Your task to perform on an android device: Open Yahoo.com Image 0: 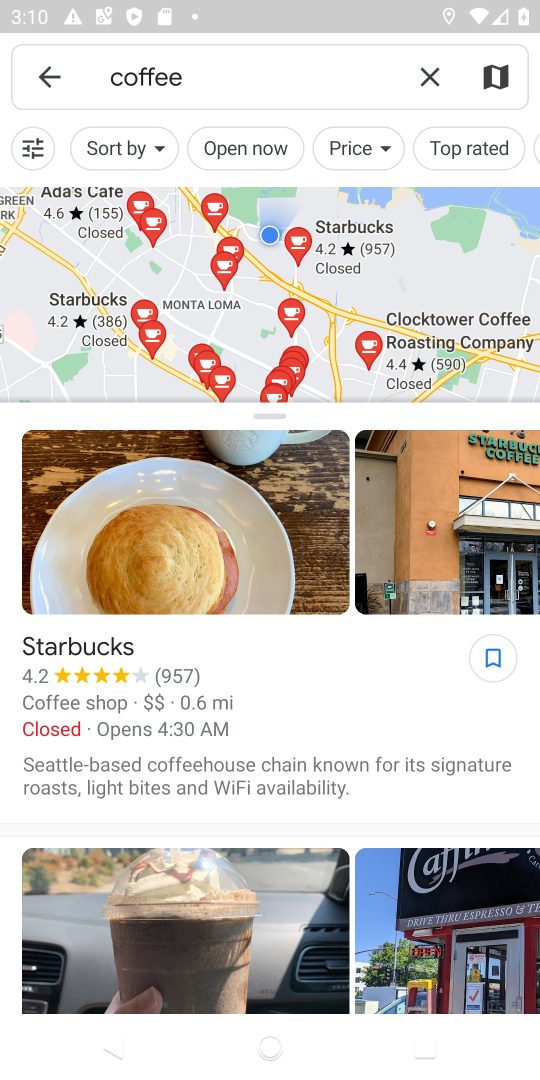
Step 0: press back button
Your task to perform on an android device: Open Yahoo.com Image 1: 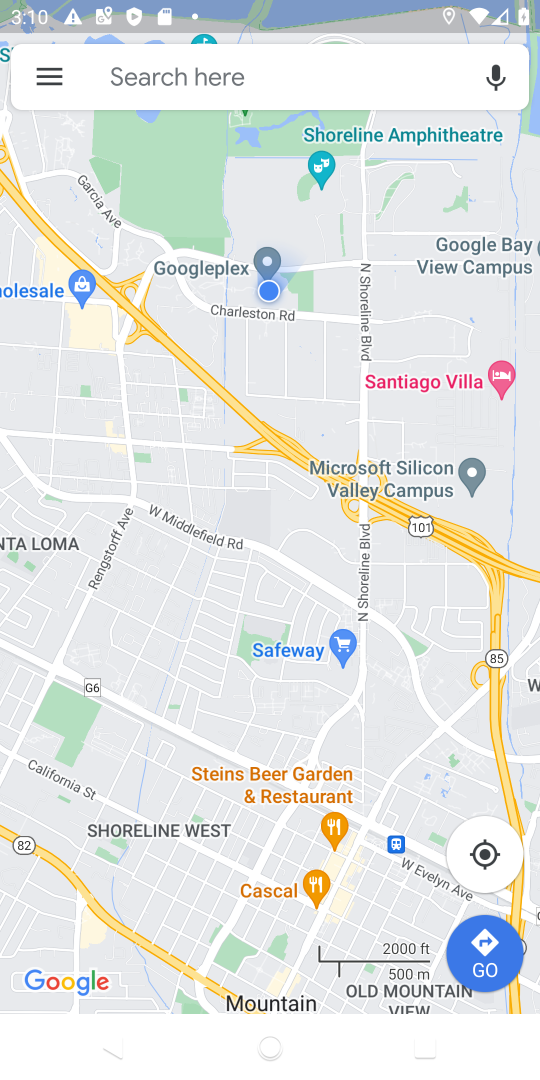
Step 1: press back button
Your task to perform on an android device: Open Yahoo.com Image 2: 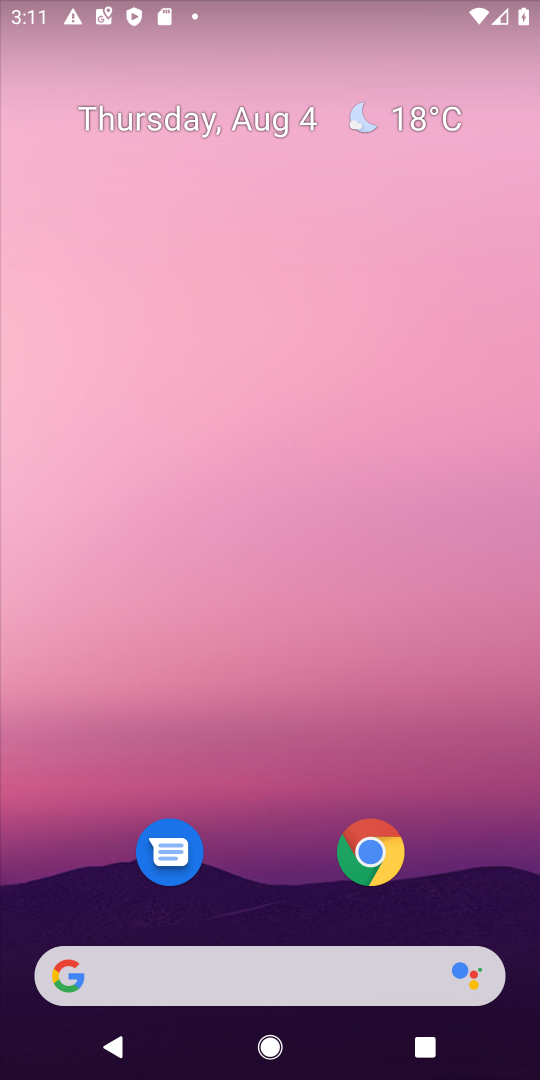
Step 2: click (370, 856)
Your task to perform on an android device: Open Yahoo.com Image 3: 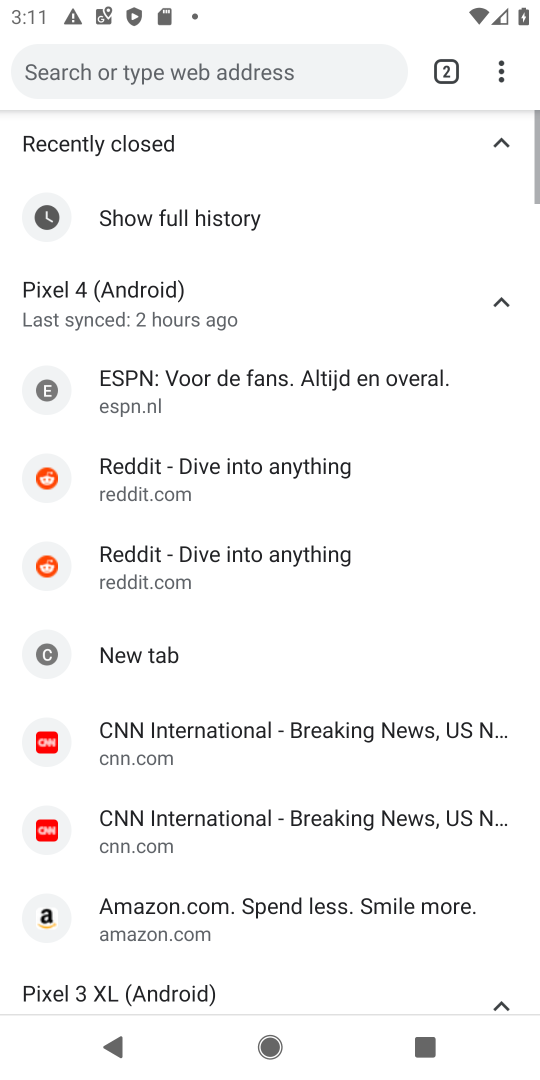
Step 3: click (443, 57)
Your task to perform on an android device: Open Yahoo.com Image 4: 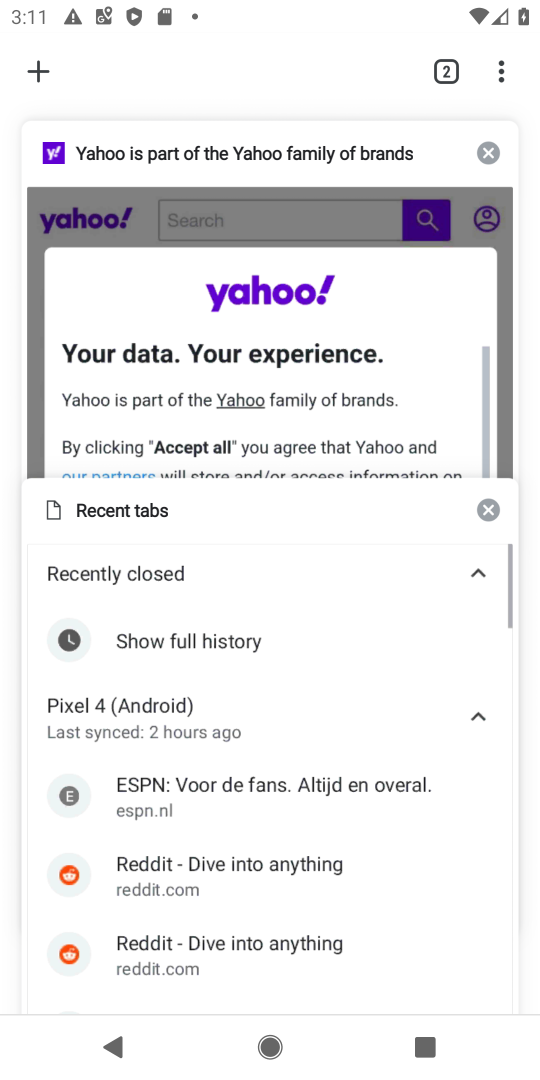
Step 4: click (141, 215)
Your task to perform on an android device: Open Yahoo.com Image 5: 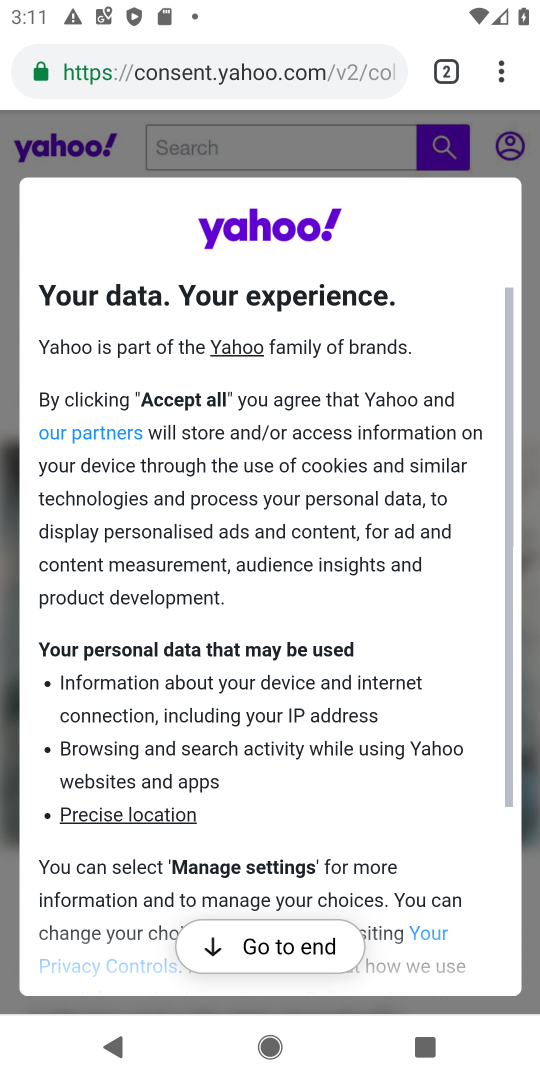
Step 5: task complete